Your task to perform on an android device: add a contact in the contacts app Image 0: 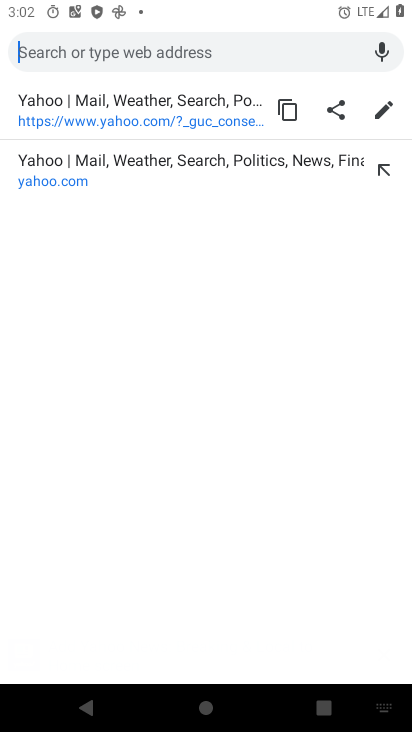
Step 0: press home button
Your task to perform on an android device: add a contact in the contacts app Image 1: 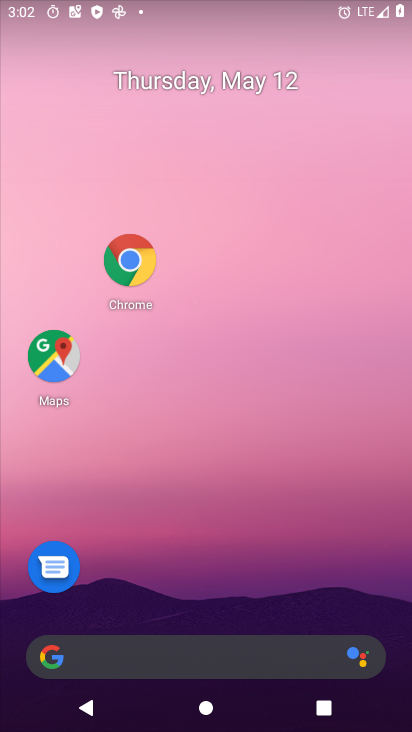
Step 1: drag from (249, 632) to (246, 320)
Your task to perform on an android device: add a contact in the contacts app Image 2: 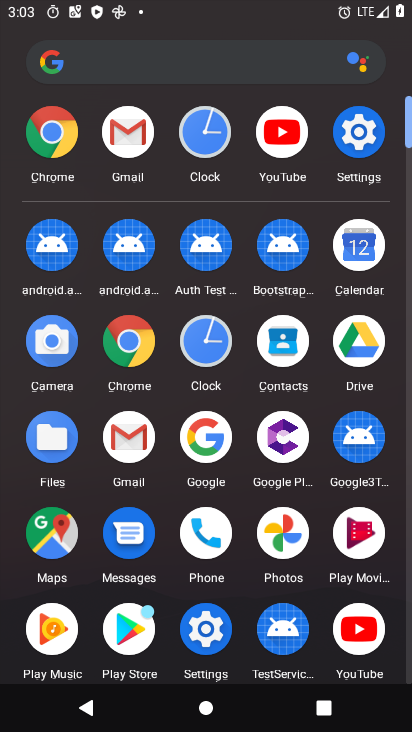
Step 2: click (289, 362)
Your task to perform on an android device: add a contact in the contacts app Image 3: 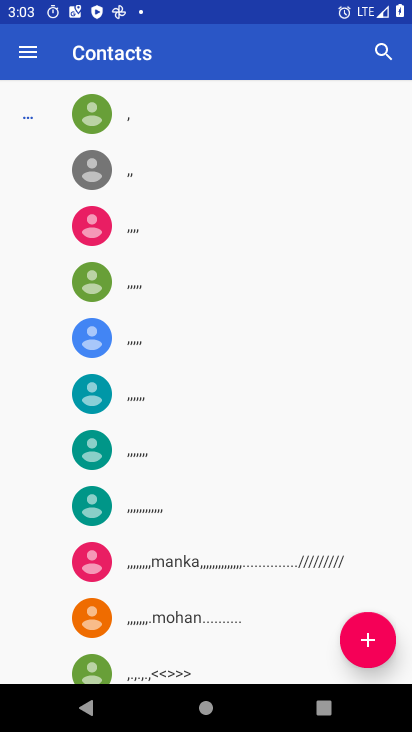
Step 3: click (365, 649)
Your task to perform on an android device: add a contact in the contacts app Image 4: 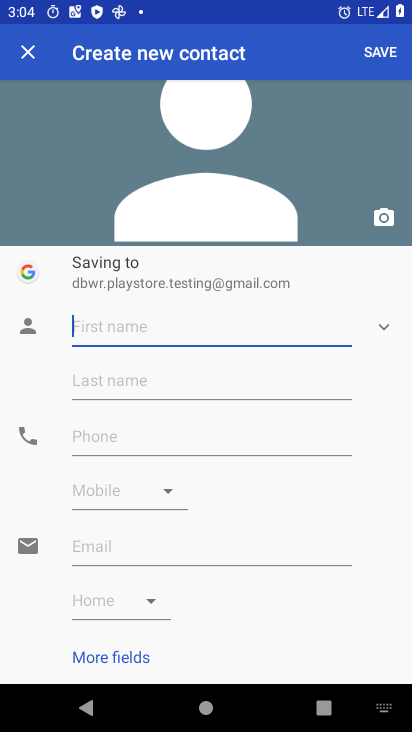
Step 4: click (134, 333)
Your task to perform on an android device: add a contact in the contacts app Image 5: 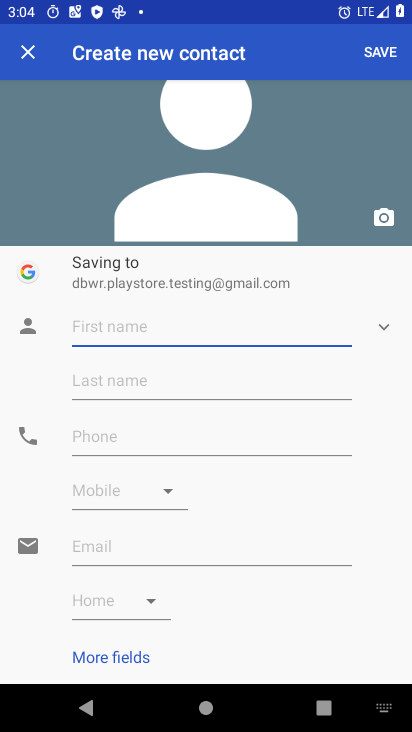
Step 5: type "jina"
Your task to perform on an android device: add a contact in the contacts app Image 6: 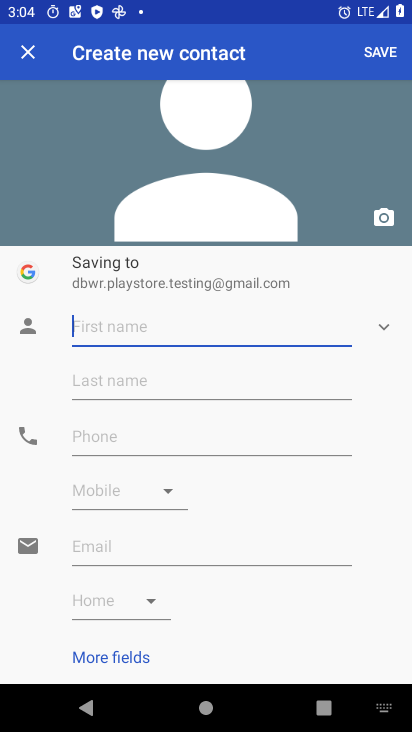
Step 6: click (134, 387)
Your task to perform on an android device: add a contact in the contacts app Image 7: 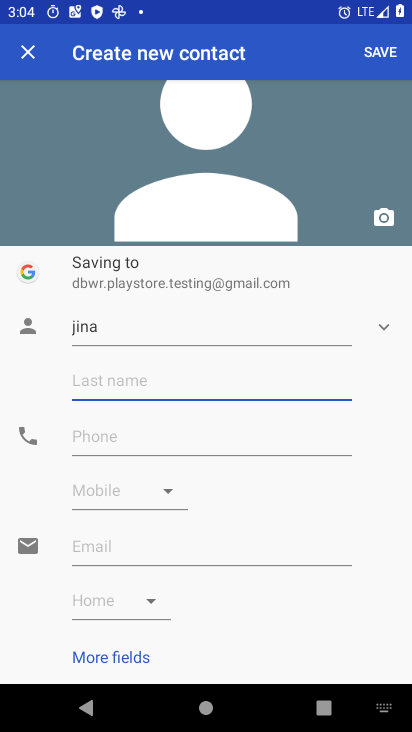
Step 7: type "lupi"
Your task to perform on an android device: add a contact in the contacts app Image 8: 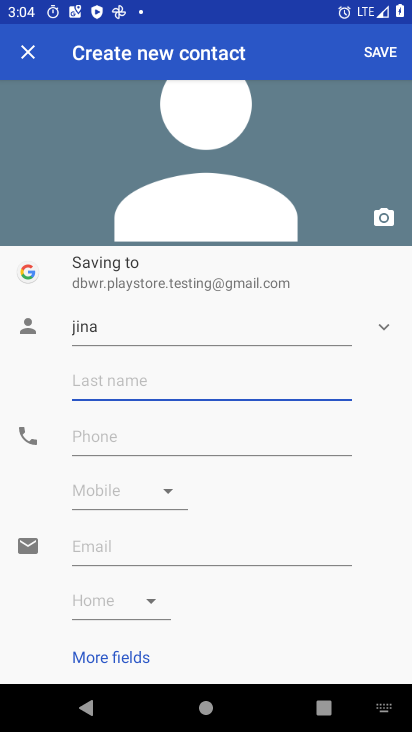
Step 8: click (123, 446)
Your task to perform on an android device: add a contact in the contacts app Image 9: 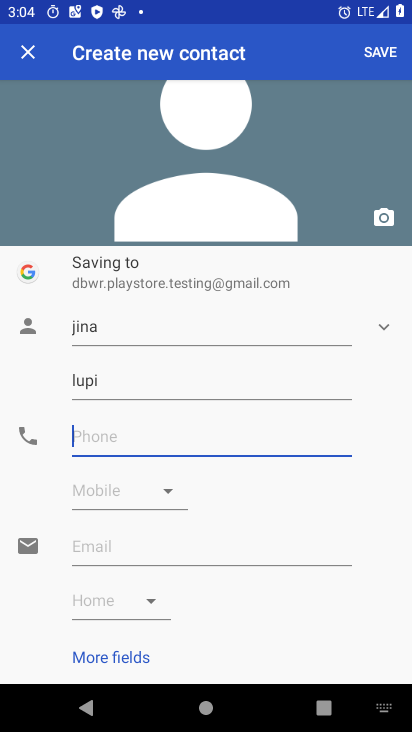
Step 9: type "7676767676"
Your task to perform on an android device: add a contact in the contacts app Image 10: 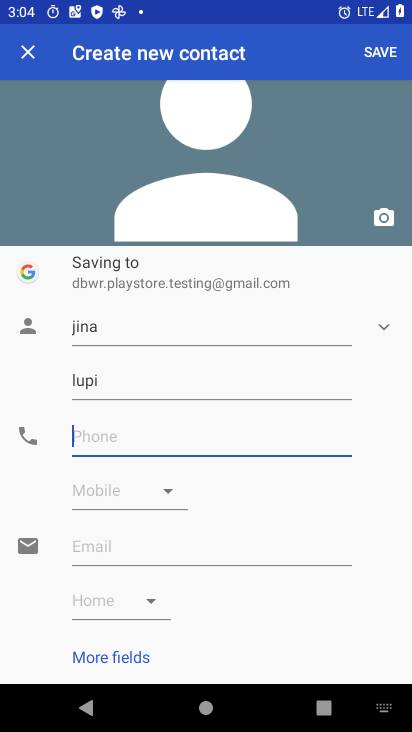
Step 10: click (169, 489)
Your task to perform on an android device: add a contact in the contacts app Image 11: 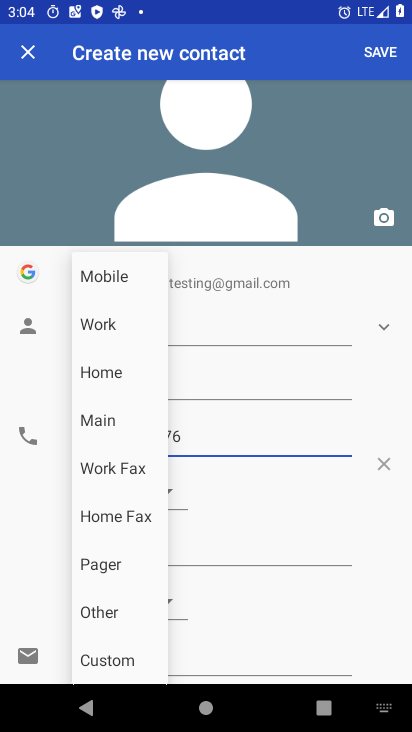
Step 11: click (117, 282)
Your task to perform on an android device: add a contact in the contacts app Image 12: 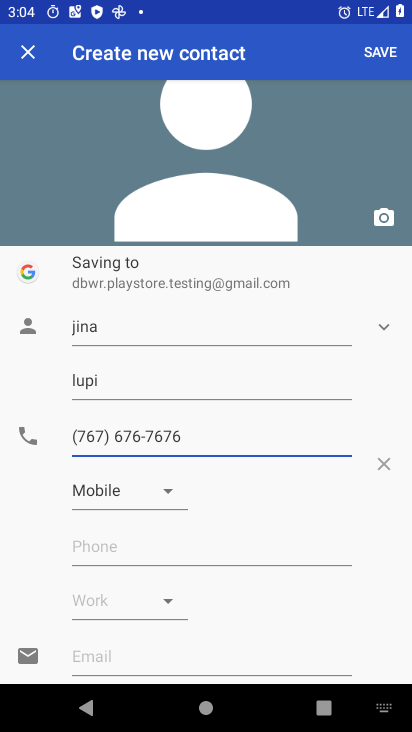
Step 12: click (385, 38)
Your task to perform on an android device: add a contact in the contacts app Image 13: 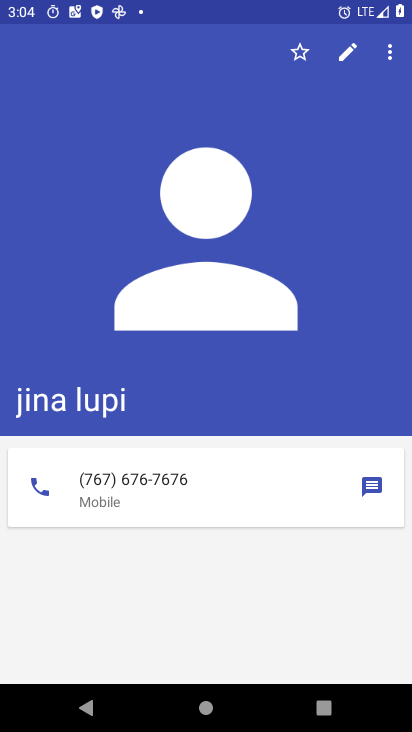
Step 13: task complete